Your task to perform on an android device: find photos in the google photos app Image 0: 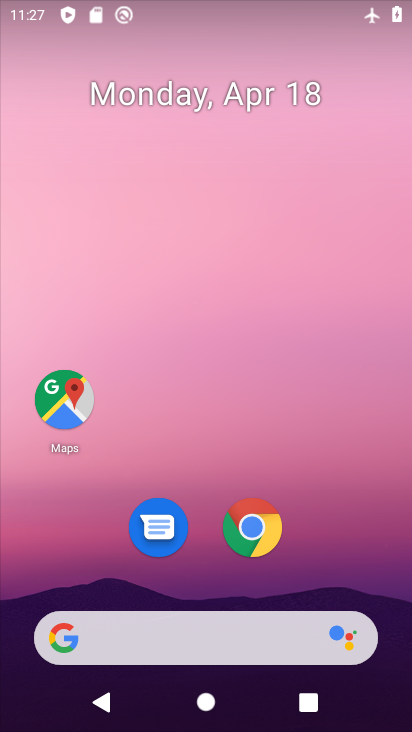
Step 0: drag from (350, 586) to (345, 57)
Your task to perform on an android device: find photos in the google photos app Image 1: 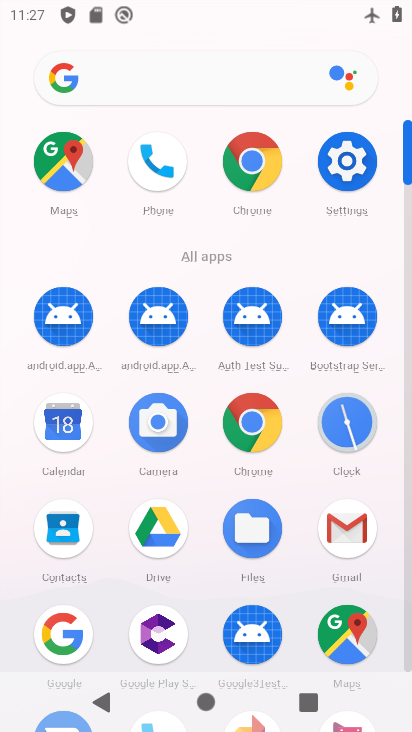
Step 1: drag from (293, 592) to (304, 361)
Your task to perform on an android device: find photos in the google photos app Image 2: 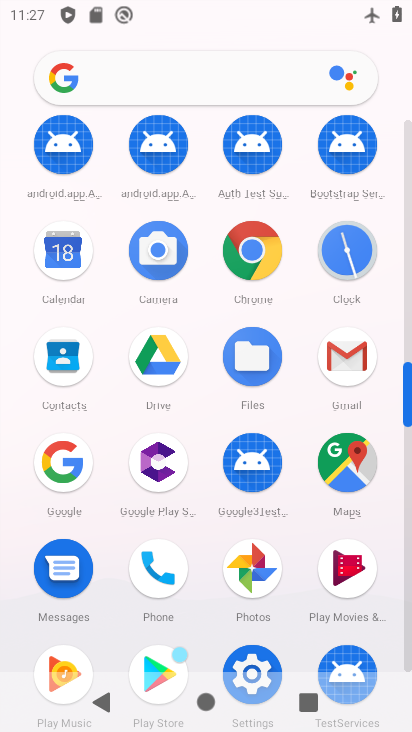
Step 2: click (266, 576)
Your task to perform on an android device: find photos in the google photos app Image 3: 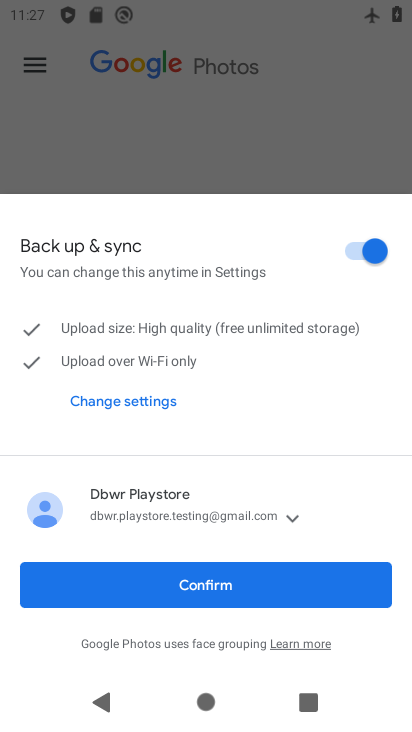
Step 3: click (174, 594)
Your task to perform on an android device: find photos in the google photos app Image 4: 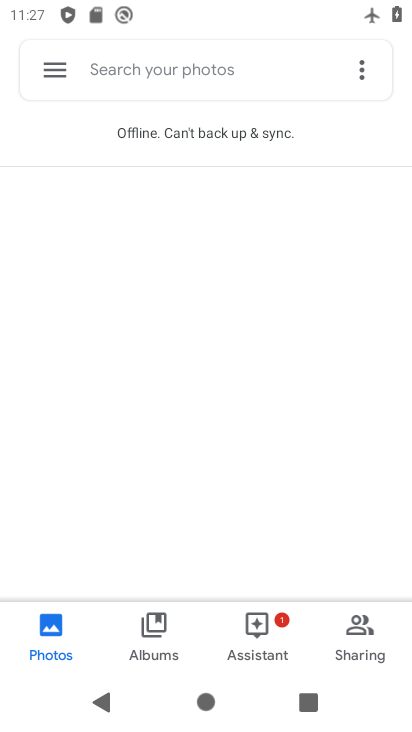
Step 4: task complete